Your task to perform on an android device: add a label to a message in the gmail app Image 0: 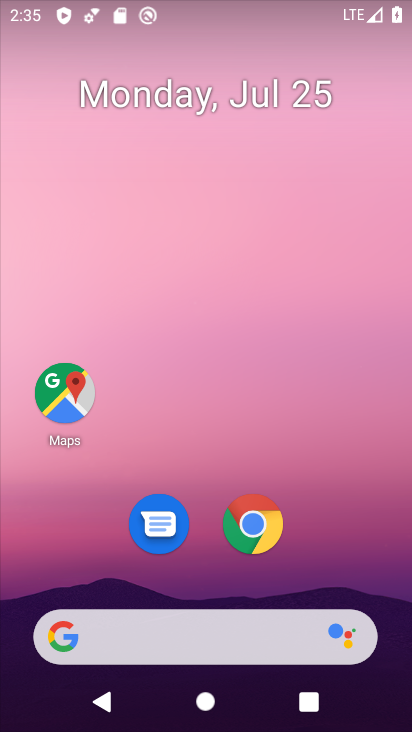
Step 0: drag from (332, 546) to (286, 37)
Your task to perform on an android device: add a label to a message in the gmail app Image 1: 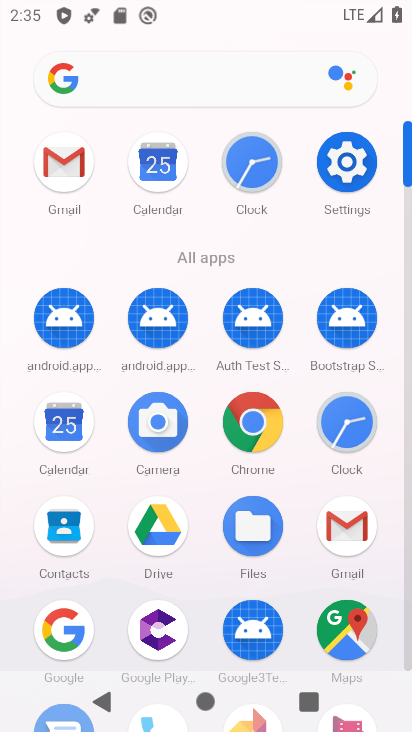
Step 1: click (49, 159)
Your task to perform on an android device: add a label to a message in the gmail app Image 2: 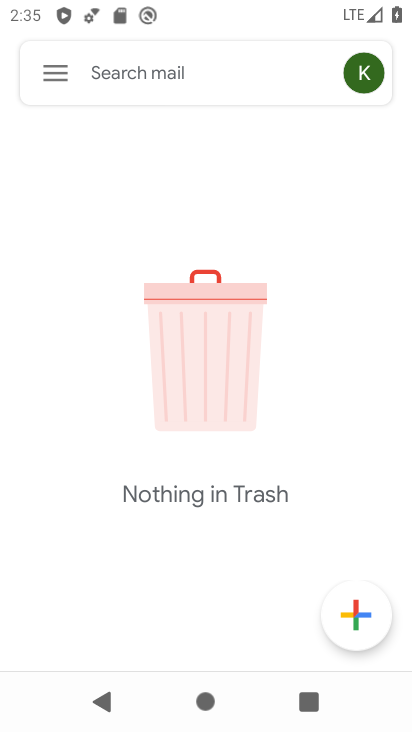
Step 2: click (60, 71)
Your task to perform on an android device: add a label to a message in the gmail app Image 3: 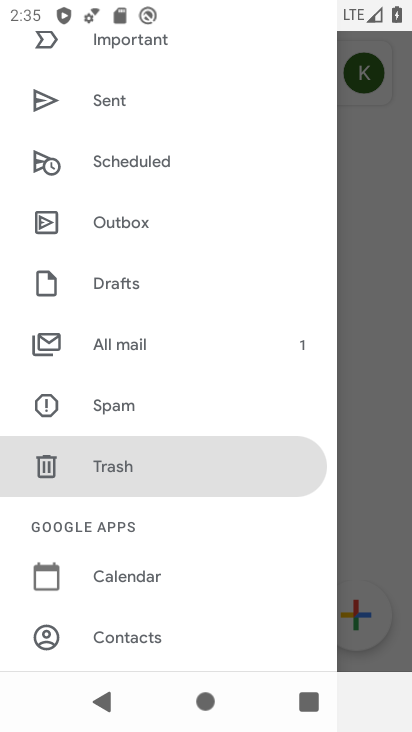
Step 3: click (145, 350)
Your task to perform on an android device: add a label to a message in the gmail app Image 4: 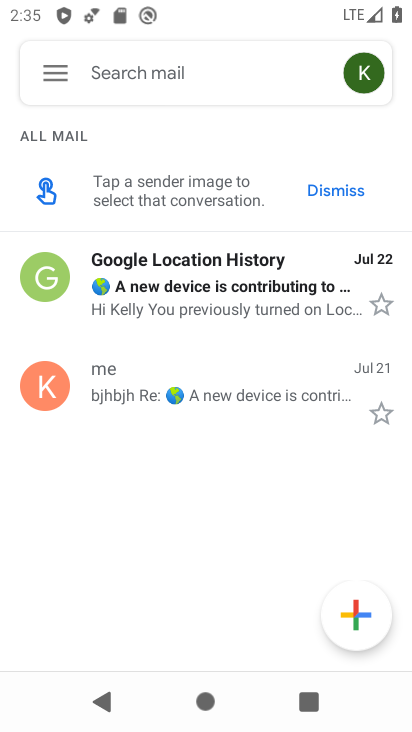
Step 4: click (252, 386)
Your task to perform on an android device: add a label to a message in the gmail app Image 5: 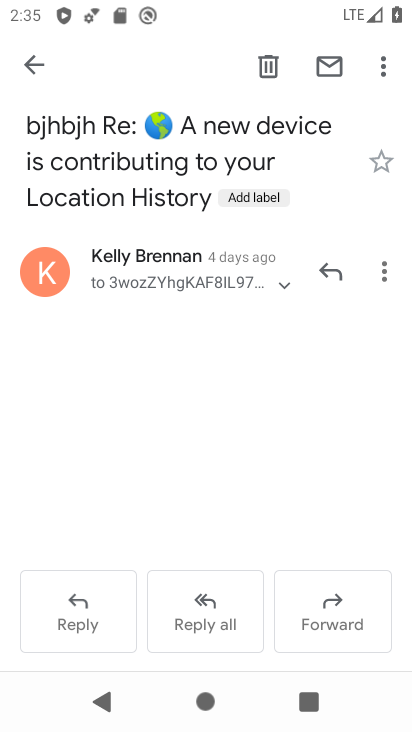
Step 5: click (377, 53)
Your task to perform on an android device: add a label to a message in the gmail app Image 6: 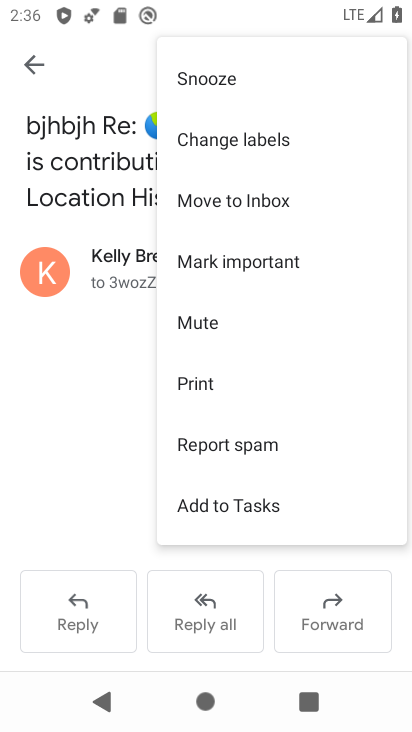
Step 6: click (263, 137)
Your task to perform on an android device: add a label to a message in the gmail app Image 7: 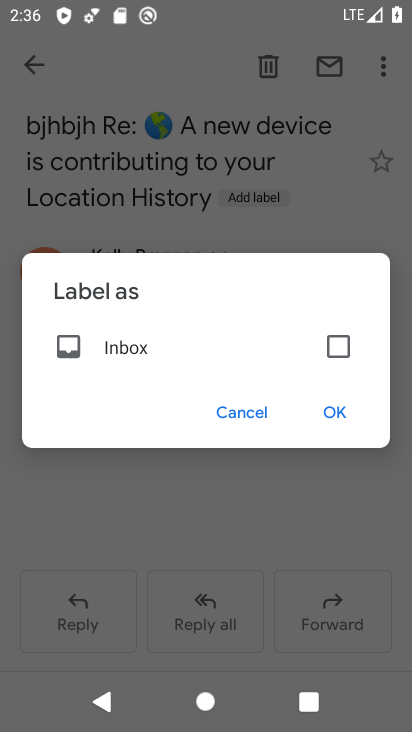
Step 7: click (338, 339)
Your task to perform on an android device: add a label to a message in the gmail app Image 8: 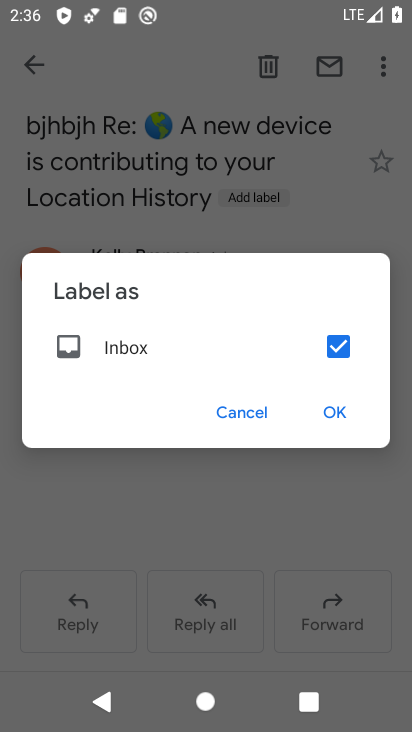
Step 8: click (334, 405)
Your task to perform on an android device: add a label to a message in the gmail app Image 9: 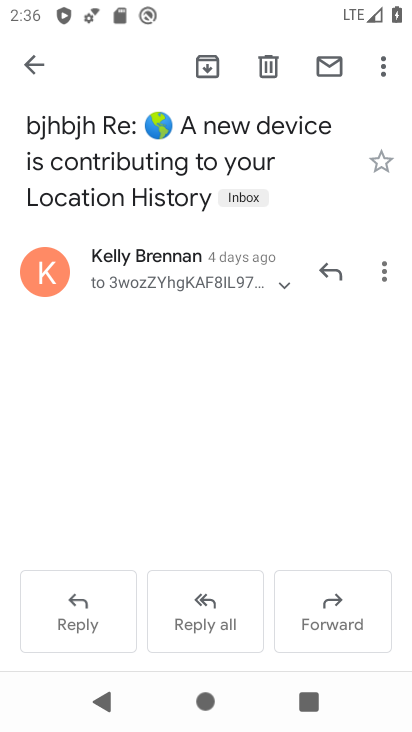
Step 9: task complete